Your task to perform on an android device: turn off smart reply in the gmail app Image 0: 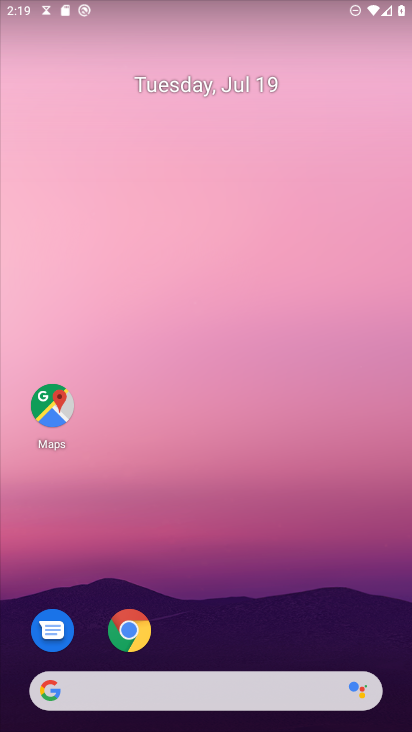
Step 0: drag from (220, 681) to (309, 71)
Your task to perform on an android device: turn off smart reply in the gmail app Image 1: 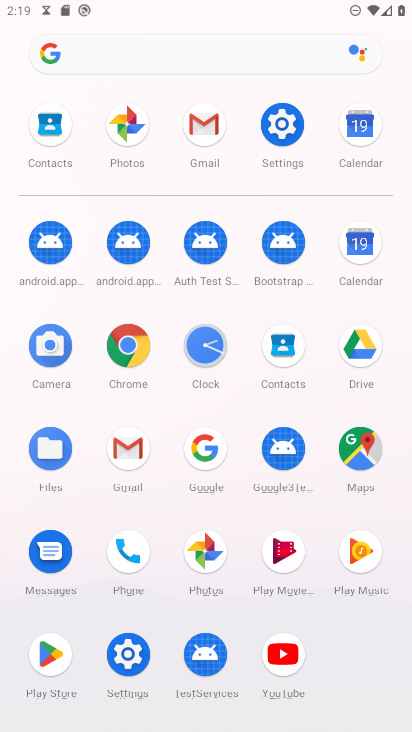
Step 1: click (204, 130)
Your task to perform on an android device: turn off smart reply in the gmail app Image 2: 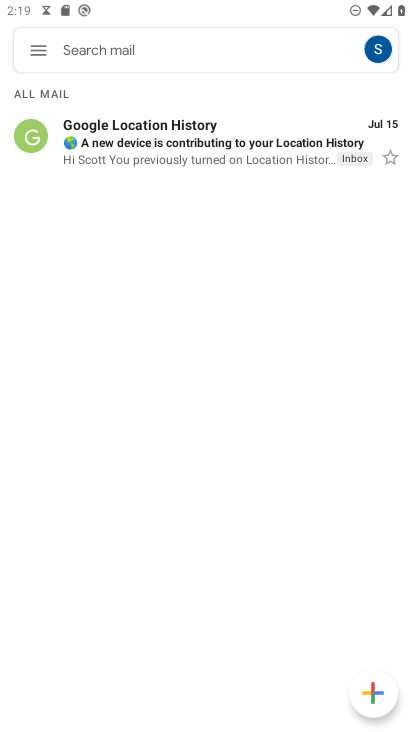
Step 2: click (35, 52)
Your task to perform on an android device: turn off smart reply in the gmail app Image 3: 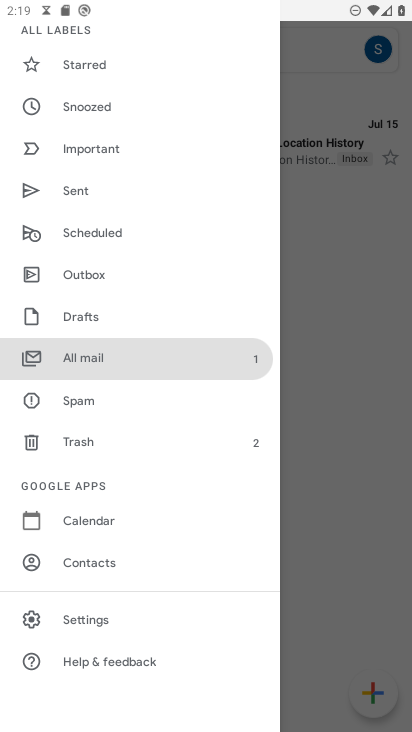
Step 3: click (87, 615)
Your task to perform on an android device: turn off smart reply in the gmail app Image 4: 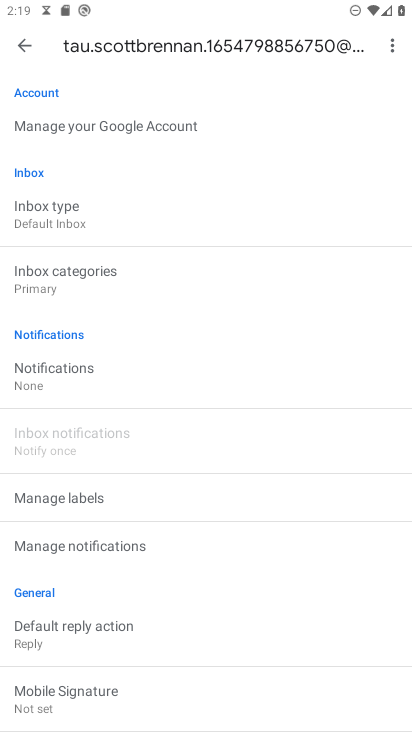
Step 4: task complete